Your task to perform on an android device: open sync settings in chrome Image 0: 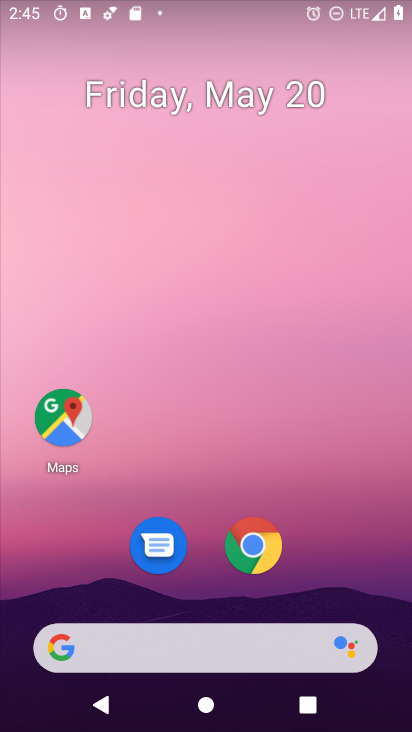
Step 0: drag from (238, 649) to (331, 36)
Your task to perform on an android device: open sync settings in chrome Image 1: 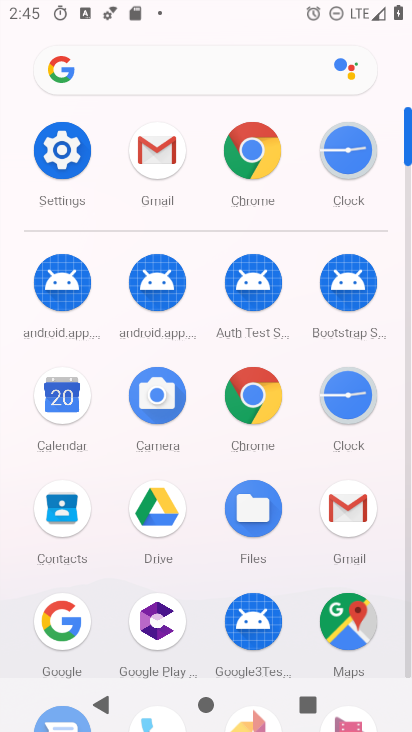
Step 1: click (252, 394)
Your task to perform on an android device: open sync settings in chrome Image 2: 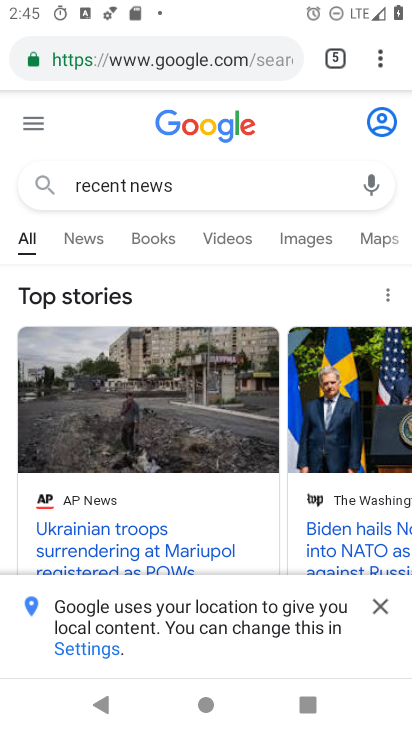
Step 2: drag from (380, 57) to (188, 566)
Your task to perform on an android device: open sync settings in chrome Image 3: 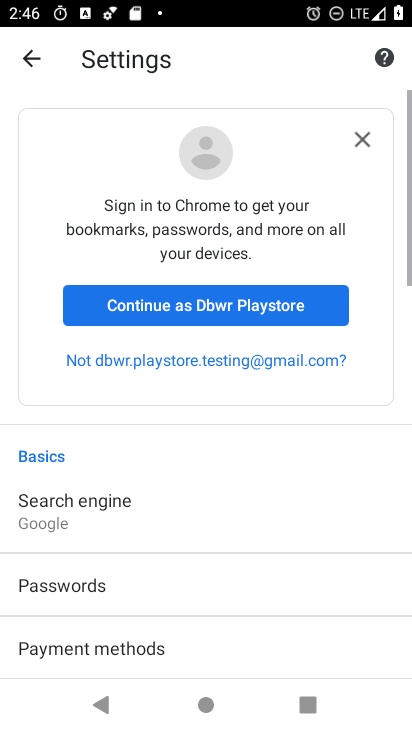
Step 3: drag from (255, 643) to (244, 62)
Your task to perform on an android device: open sync settings in chrome Image 4: 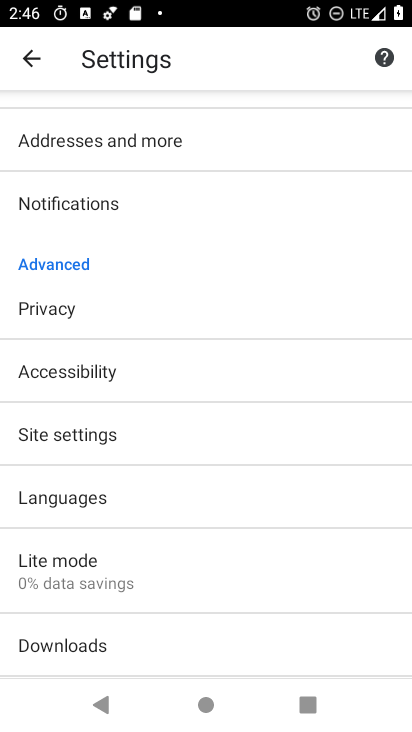
Step 4: click (109, 432)
Your task to perform on an android device: open sync settings in chrome Image 5: 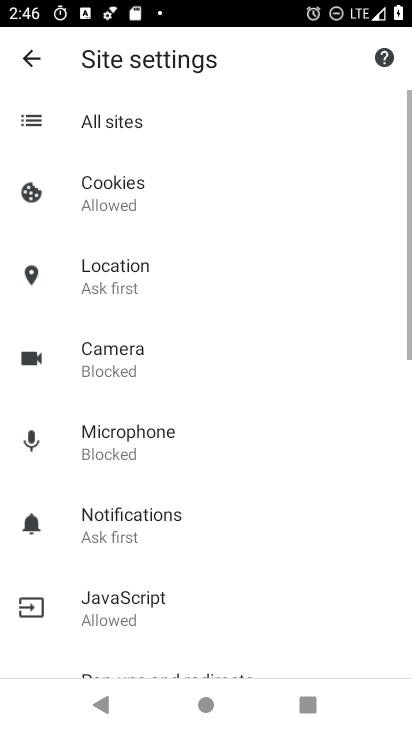
Step 5: drag from (170, 604) to (222, 298)
Your task to perform on an android device: open sync settings in chrome Image 6: 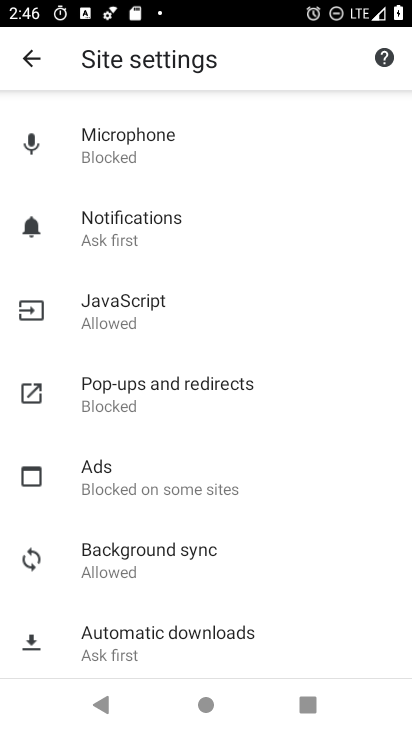
Step 6: click (157, 550)
Your task to perform on an android device: open sync settings in chrome Image 7: 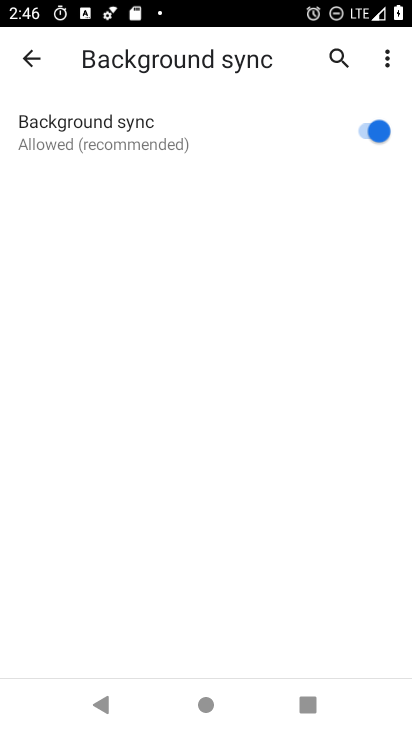
Step 7: task complete